Your task to perform on an android device: Open notification settings Image 0: 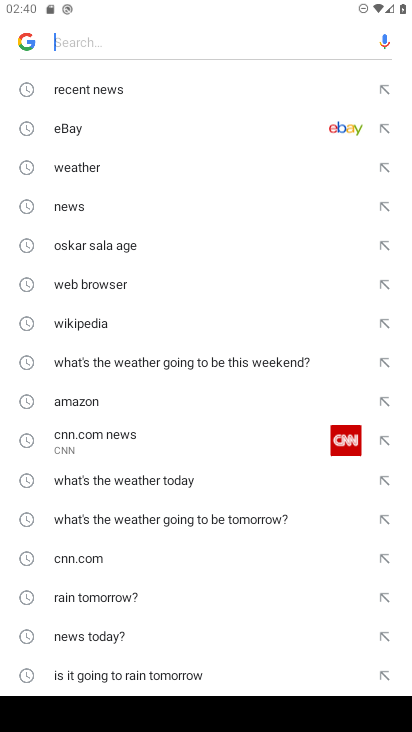
Step 0: press home button
Your task to perform on an android device: Open notification settings Image 1: 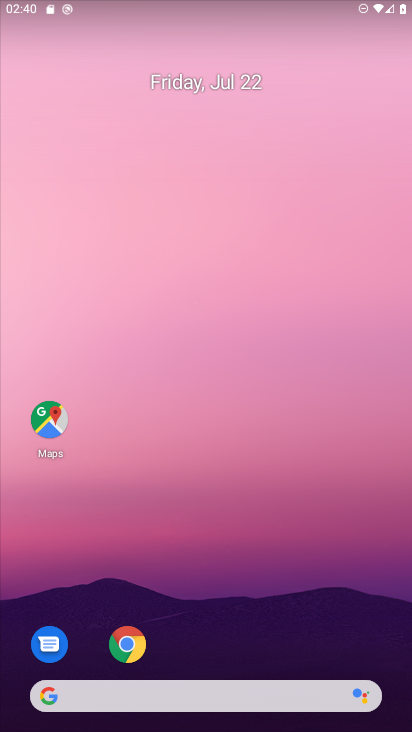
Step 1: drag from (282, 719) to (293, 491)
Your task to perform on an android device: Open notification settings Image 2: 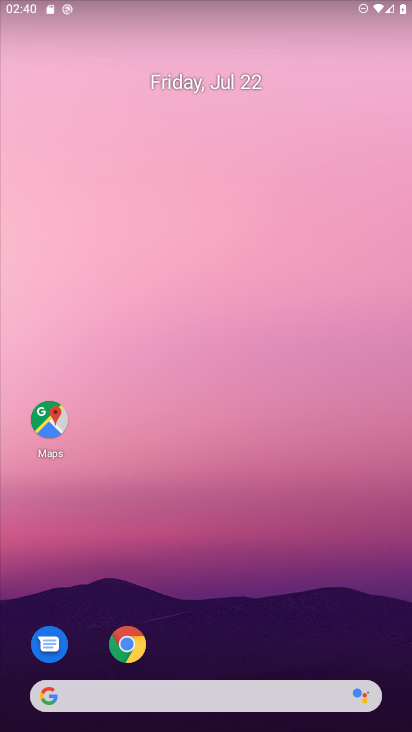
Step 2: drag from (271, 655) to (351, 314)
Your task to perform on an android device: Open notification settings Image 3: 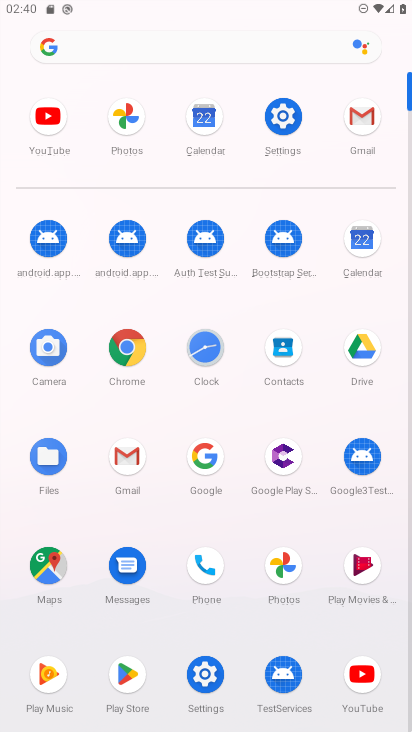
Step 3: click (301, 118)
Your task to perform on an android device: Open notification settings Image 4: 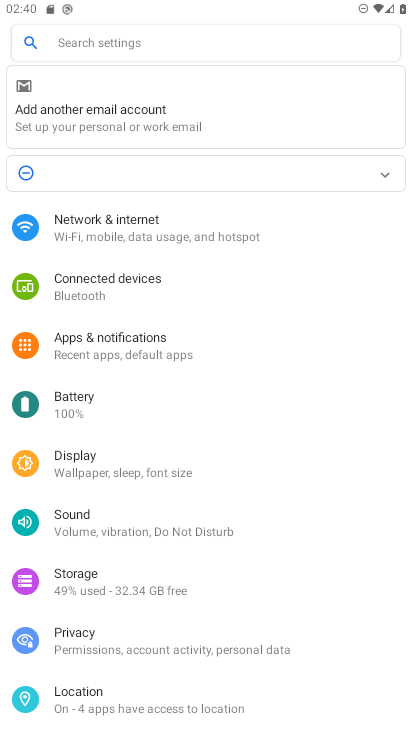
Step 4: click (160, 356)
Your task to perform on an android device: Open notification settings Image 5: 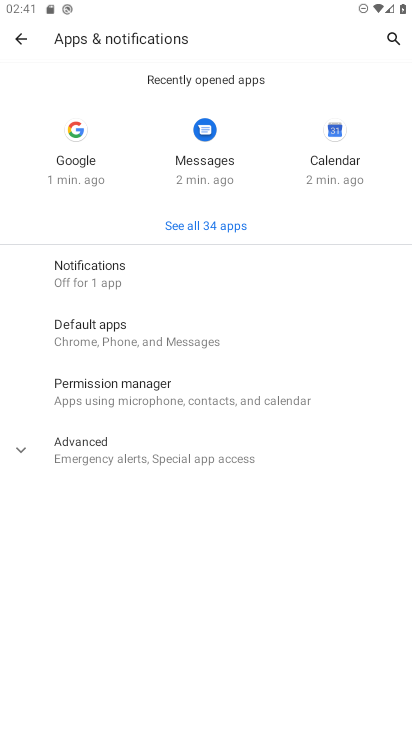
Step 5: task complete